Your task to perform on an android device: create a new album in the google photos Image 0: 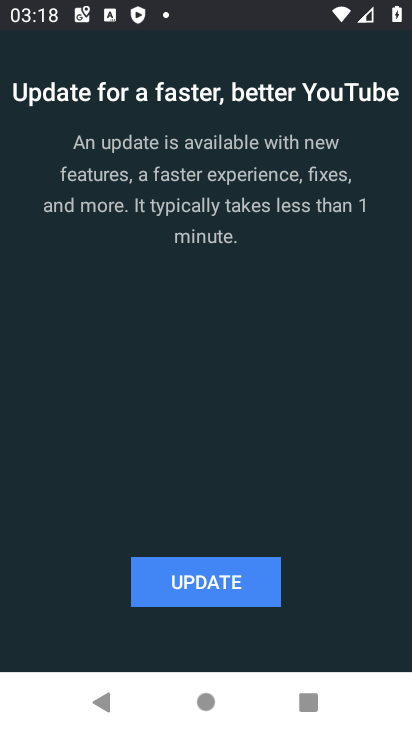
Step 0: press home button
Your task to perform on an android device: create a new album in the google photos Image 1: 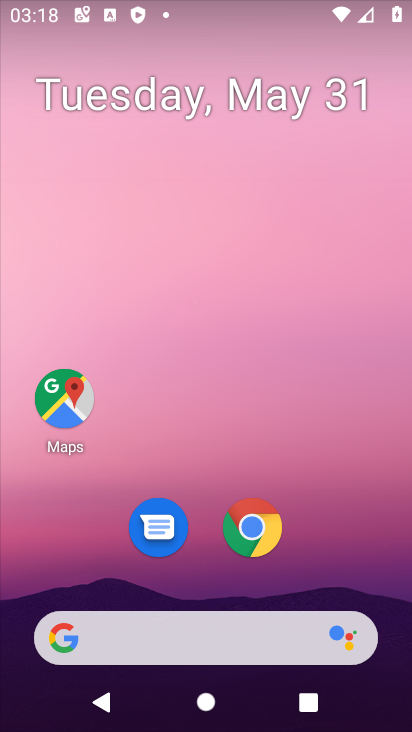
Step 1: drag from (401, 642) to (279, 70)
Your task to perform on an android device: create a new album in the google photos Image 2: 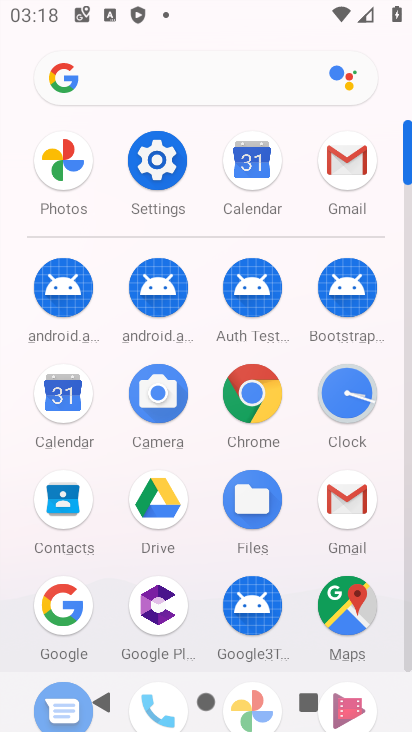
Step 2: click (409, 635)
Your task to perform on an android device: create a new album in the google photos Image 3: 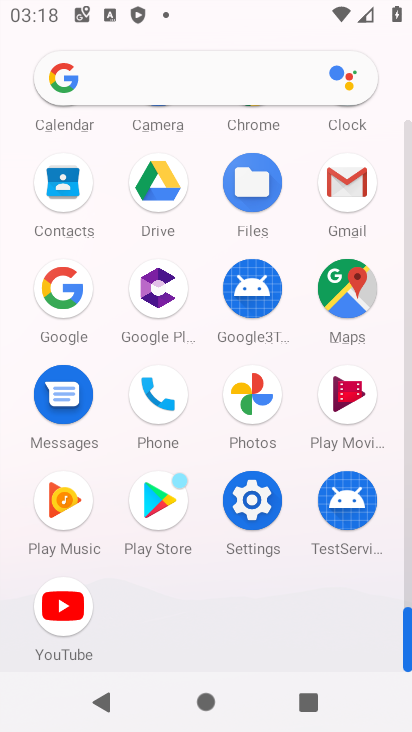
Step 3: click (252, 393)
Your task to perform on an android device: create a new album in the google photos Image 4: 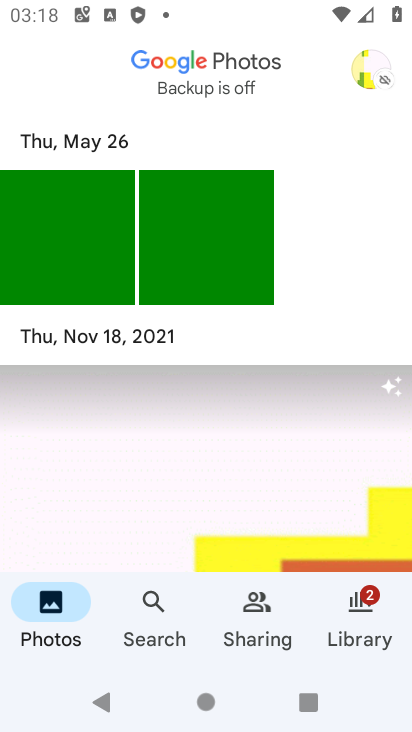
Step 4: click (353, 611)
Your task to perform on an android device: create a new album in the google photos Image 5: 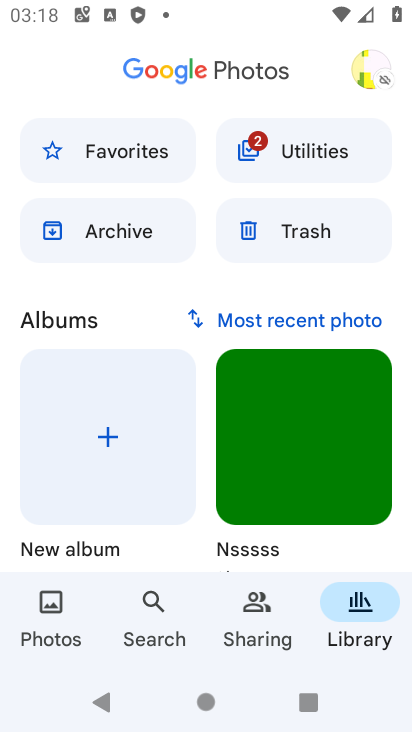
Step 5: click (107, 441)
Your task to perform on an android device: create a new album in the google photos Image 6: 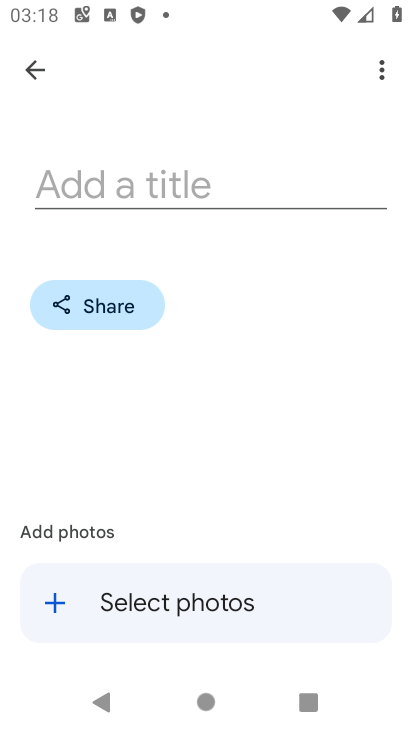
Step 6: click (113, 188)
Your task to perform on an android device: create a new album in the google photos Image 7: 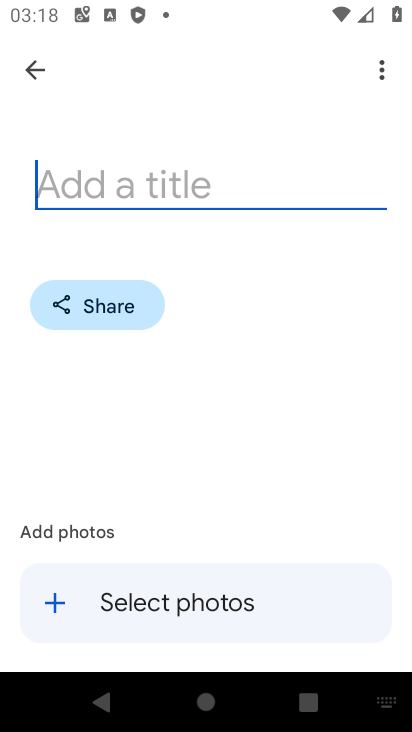
Step 7: type "kjhghjk"
Your task to perform on an android device: create a new album in the google photos Image 8: 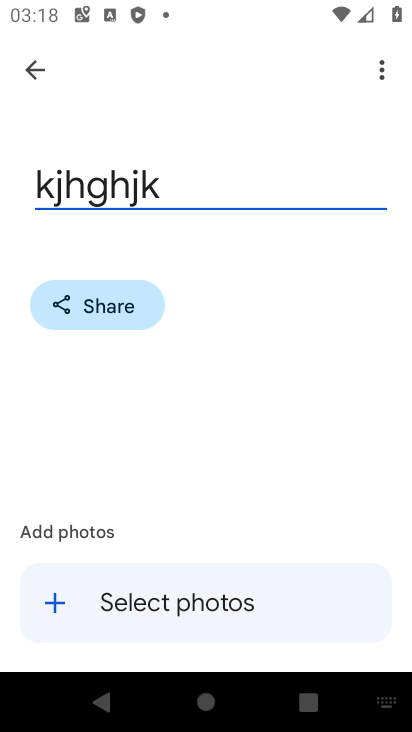
Step 8: click (58, 606)
Your task to perform on an android device: create a new album in the google photos Image 9: 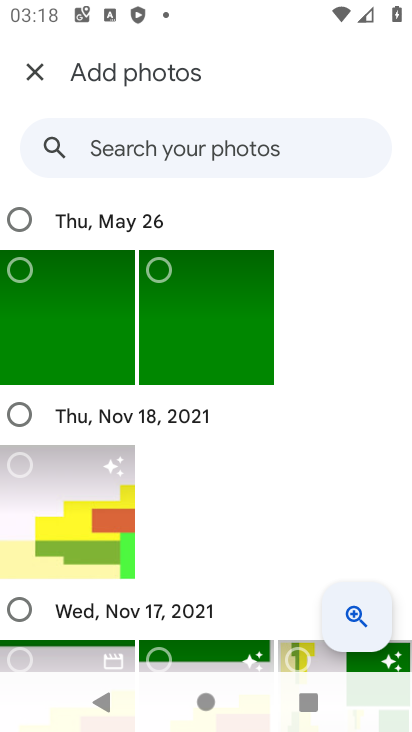
Step 9: click (50, 328)
Your task to perform on an android device: create a new album in the google photos Image 10: 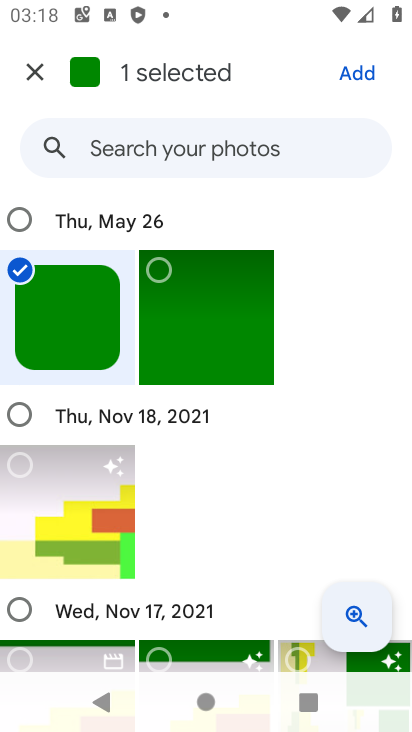
Step 10: click (24, 470)
Your task to perform on an android device: create a new album in the google photos Image 11: 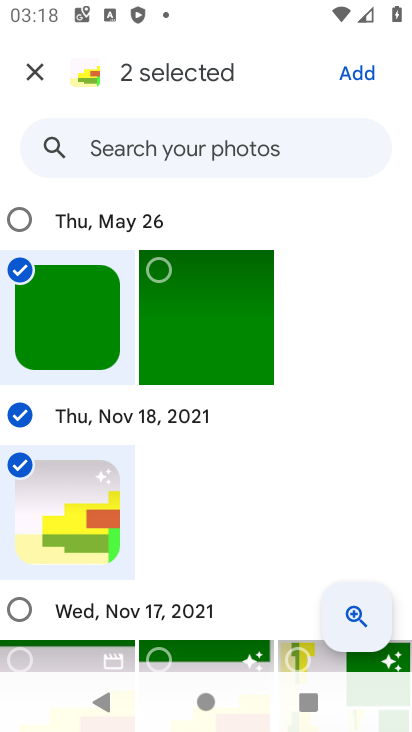
Step 11: click (357, 72)
Your task to perform on an android device: create a new album in the google photos Image 12: 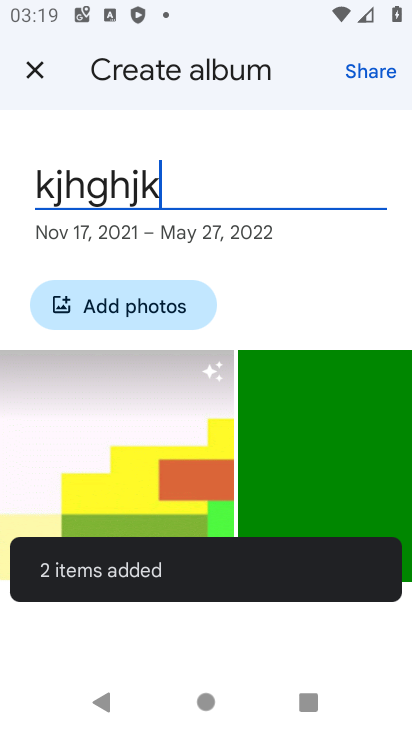
Step 12: task complete